Your task to perform on an android device: turn off smart reply in the gmail app Image 0: 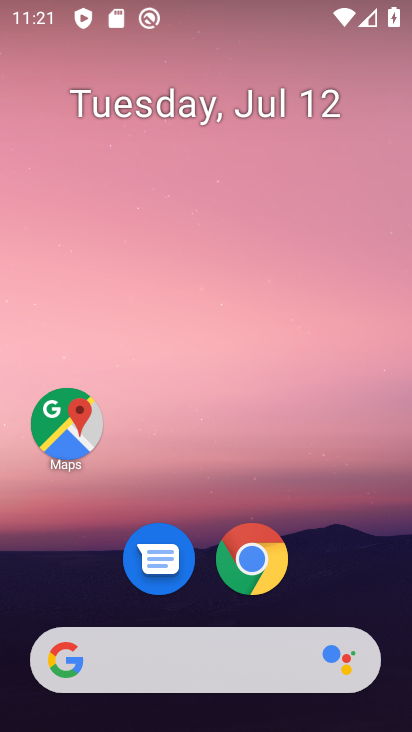
Step 0: drag from (196, 579) to (252, 197)
Your task to perform on an android device: turn off smart reply in the gmail app Image 1: 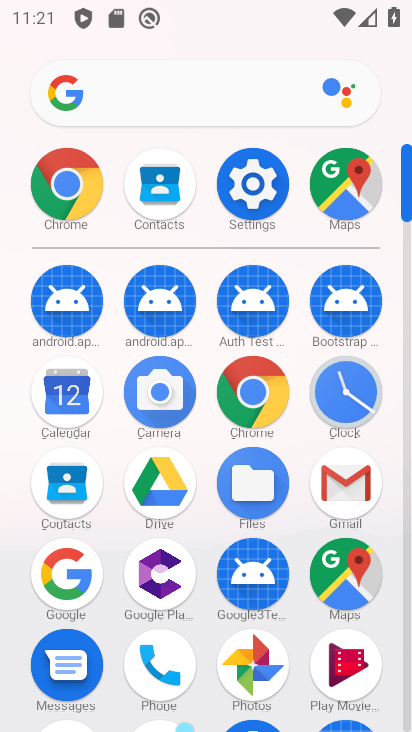
Step 1: click (358, 500)
Your task to perform on an android device: turn off smart reply in the gmail app Image 2: 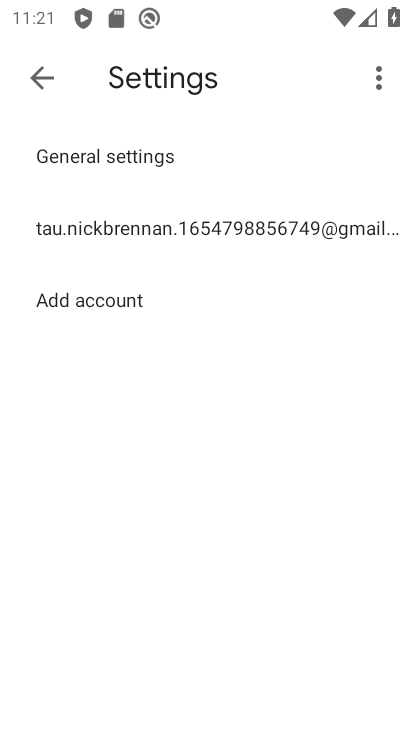
Step 2: click (150, 245)
Your task to perform on an android device: turn off smart reply in the gmail app Image 3: 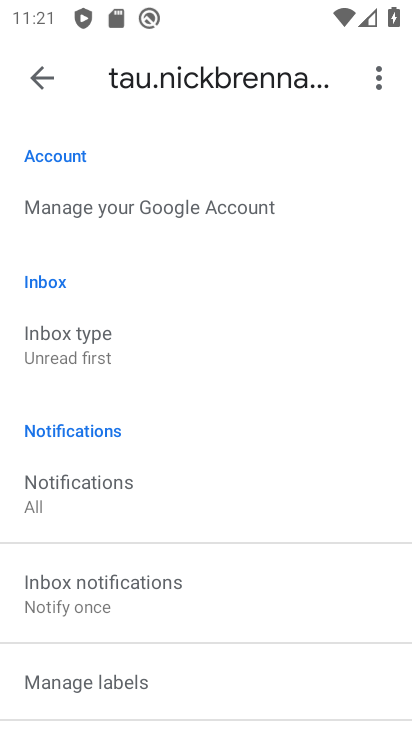
Step 3: drag from (155, 212) to (164, 117)
Your task to perform on an android device: turn off smart reply in the gmail app Image 4: 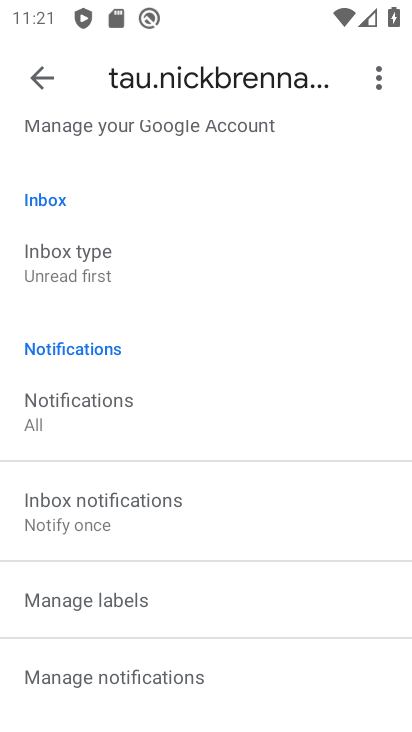
Step 4: drag from (128, 472) to (184, 137)
Your task to perform on an android device: turn off smart reply in the gmail app Image 5: 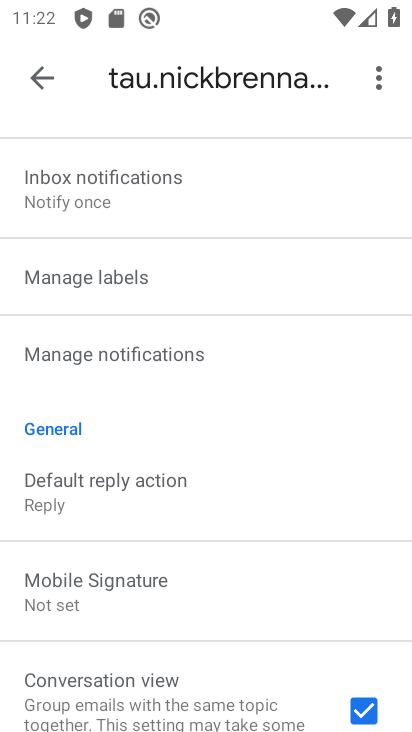
Step 5: drag from (139, 594) to (190, 330)
Your task to perform on an android device: turn off smart reply in the gmail app Image 6: 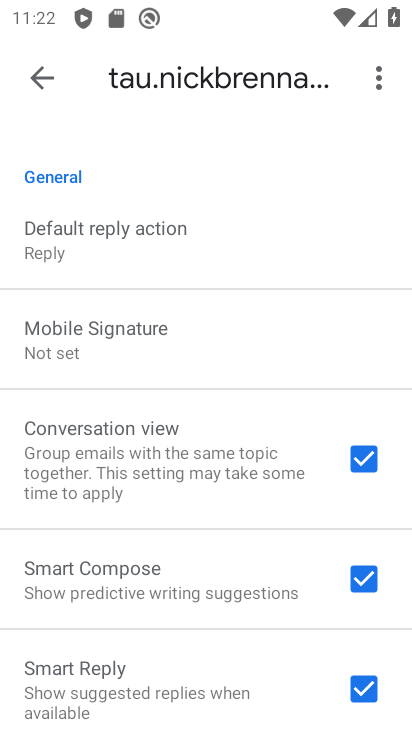
Step 6: click (184, 685)
Your task to perform on an android device: turn off smart reply in the gmail app Image 7: 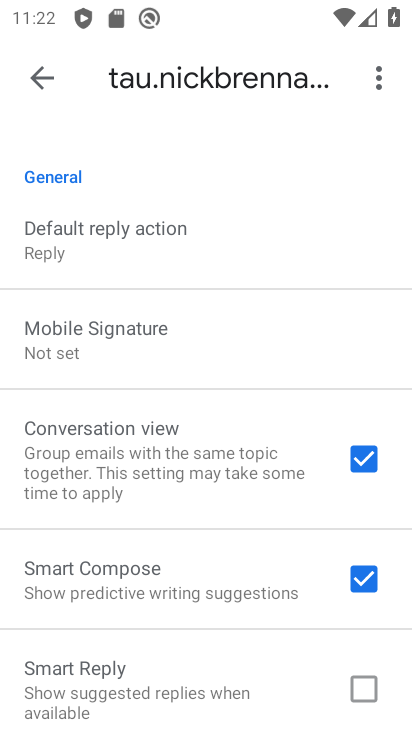
Step 7: task complete